Your task to perform on an android device: What is the news today? Image 0: 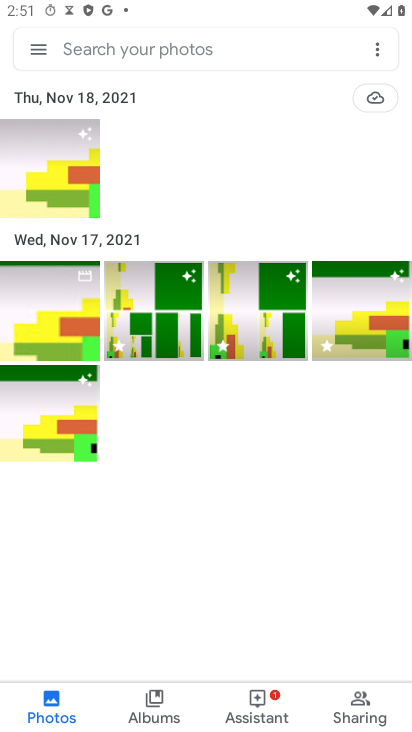
Step 0: press home button
Your task to perform on an android device: What is the news today? Image 1: 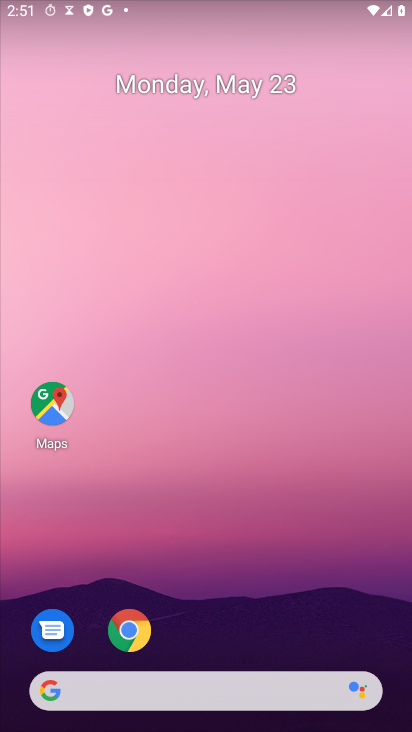
Step 1: click (123, 620)
Your task to perform on an android device: What is the news today? Image 2: 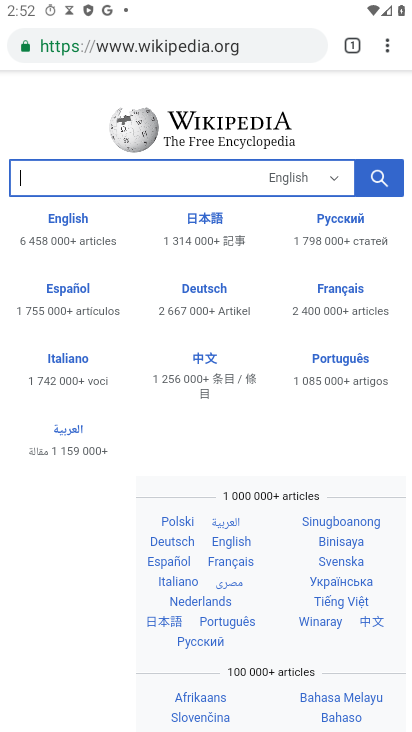
Step 2: task complete